Your task to perform on an android device: Go to Yahoo.com Image 0: 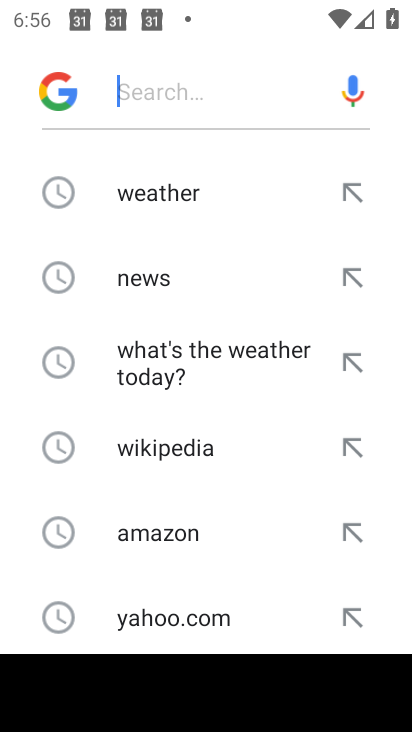
Step 0: click (186, 620)
Your task to perform on an android device: Go to Yahoo.com Image 1: 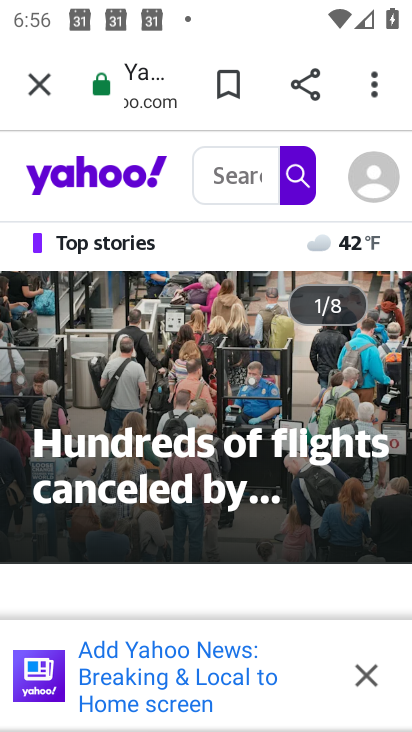
Step 1: task complete